Your task to perform on an android device: turn off airplane mode Image 0: 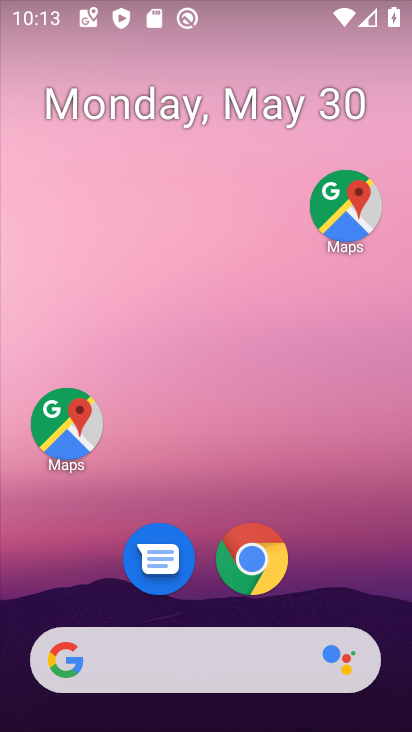
Step 0: click (306, 122)
Your task to perform on an android device: turn off airplane mode Image 1: 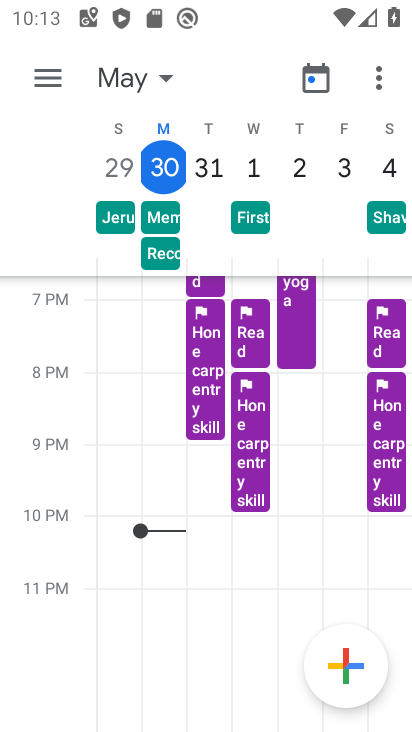
Step 1: press home button
Your task to perform on an android device: turn off airplane mode Image 2: 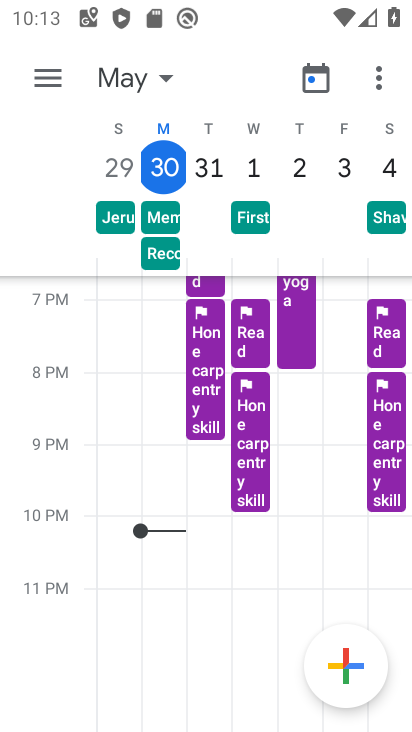
Step 2: press home button
Your task to perform on an android device: turn off airplane mode Image 3: 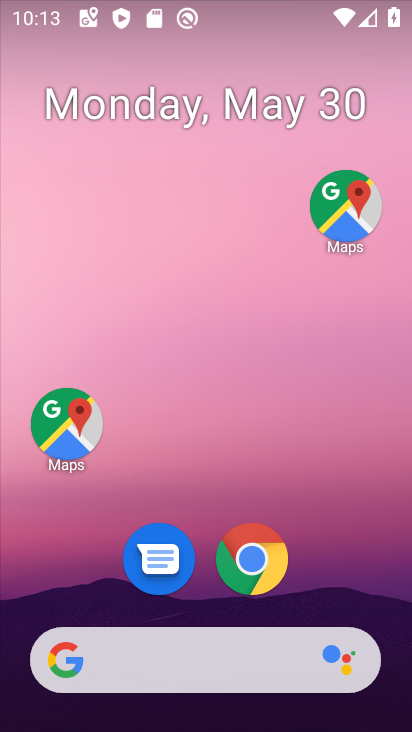
Step 3: press home button
Your task to perform on an android device: turn off airplane mode Image 4: 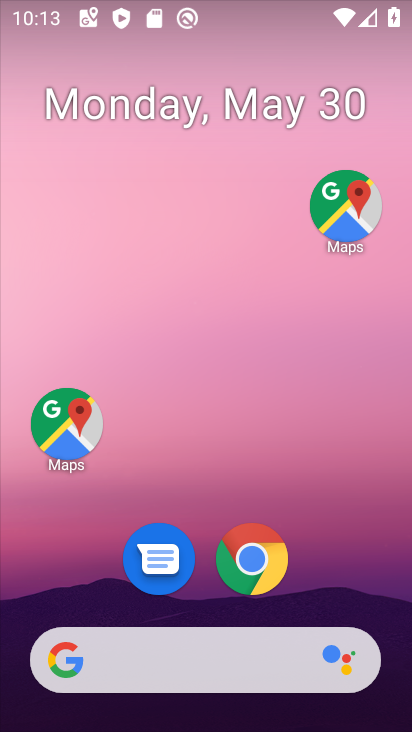
Step 4: drag from (335, 527) to (373, 67)
Your task to perform on an android device: turn off airplane mode Image 5: 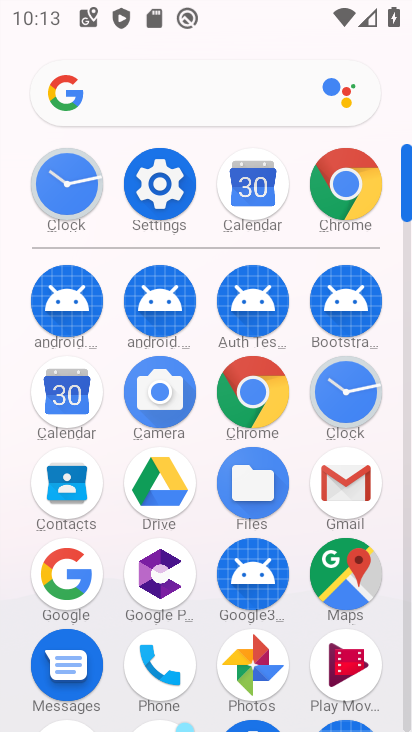
Step 5: click (146, 187)
Your task to perform on an android device: turn off airplane mode Image 6: 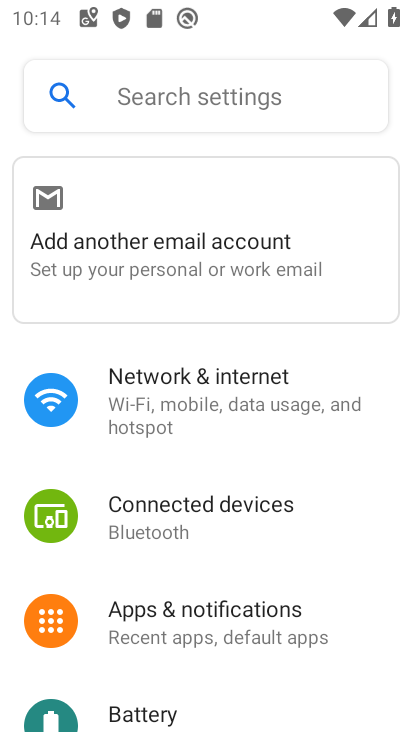
Step 6: click (179, 414)
Your task to perform on an android device: turn off airplane mode Image 7: 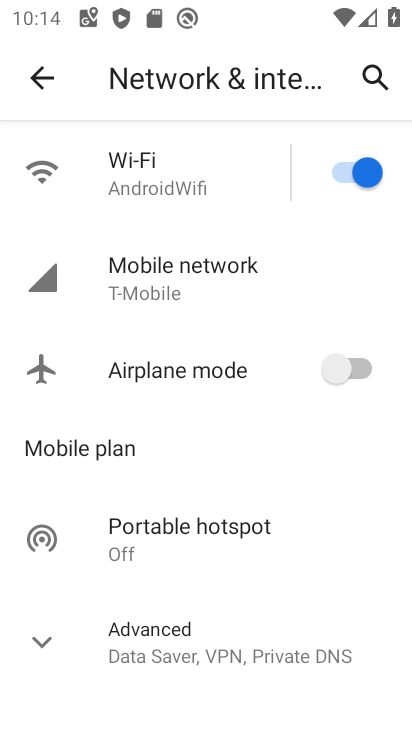
Step 7: task complete